Your task to perform on an android device: Open Android settings Image 0: 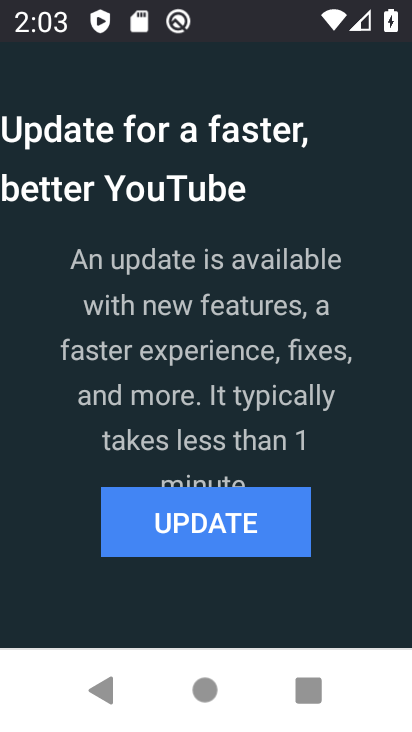
Step 0: press home button
Your task to perform on an android device: Open Android settings Image 1: 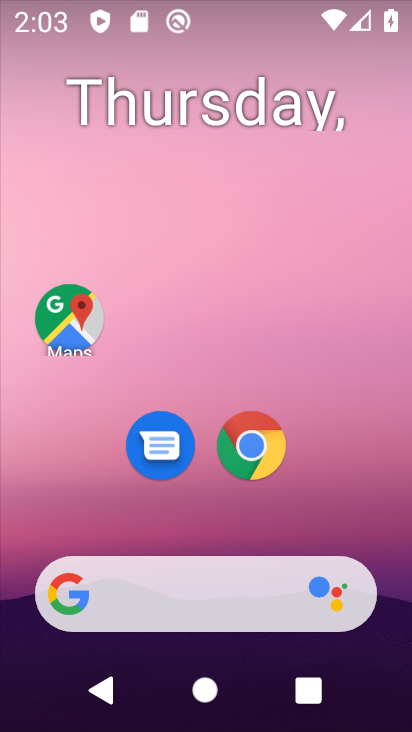
Step 1: drag from (3, 710) to (279, 114)
Your task to perform on an android device: Open Android settings Image 2: 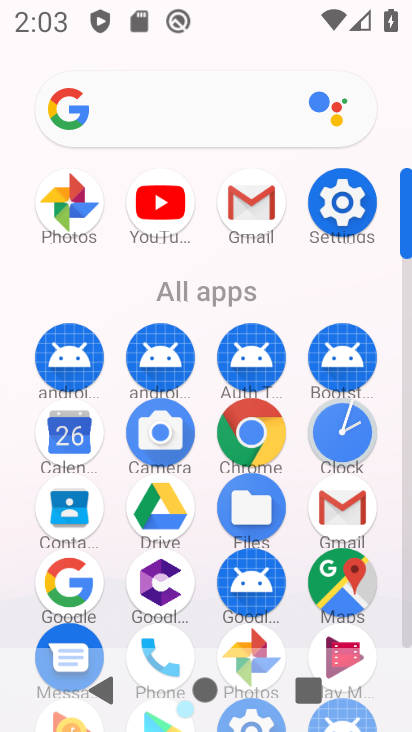
Step 2: click (318, 198)
Your task to perform on an android device: Open Android settings Image 3: 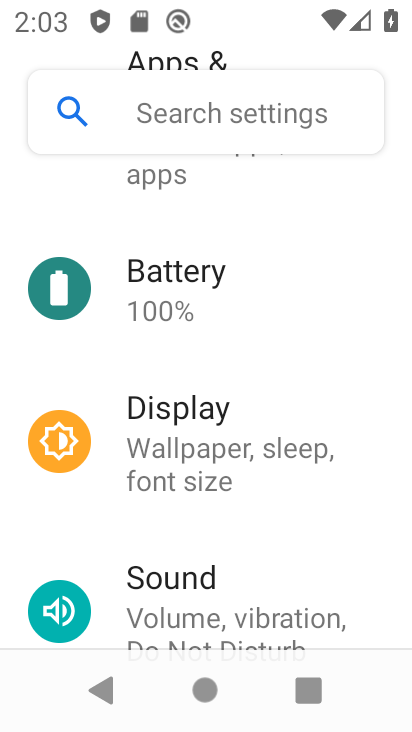
Step 3: drag from (9, 359) to (140, 172)
Your task to perform on an android device: Open Android settings Image 4: 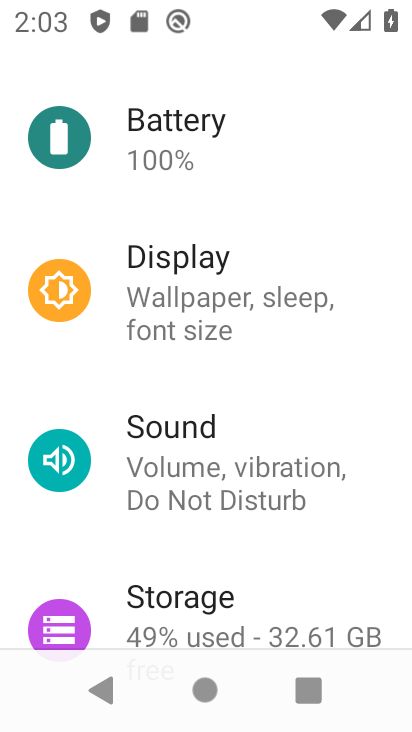
Step 4: drag from (39, 433) to (201, 217)
Your task to perform on an android device: Open Android settings Image 5: 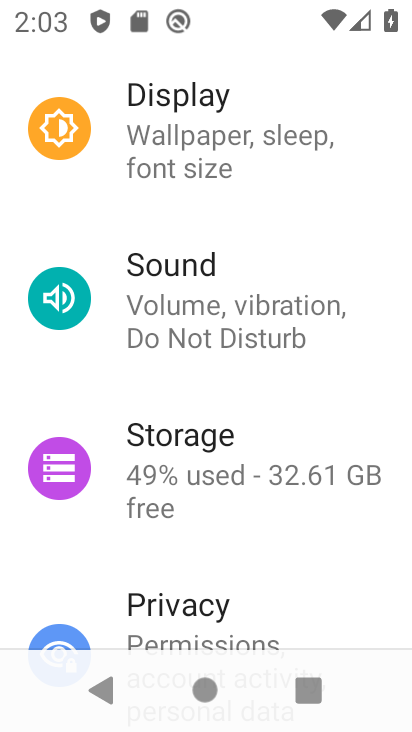
Step 5: drag from (25, 450) to (173, 206)
Your task to perform on an android device: Open Android settings Image 6: 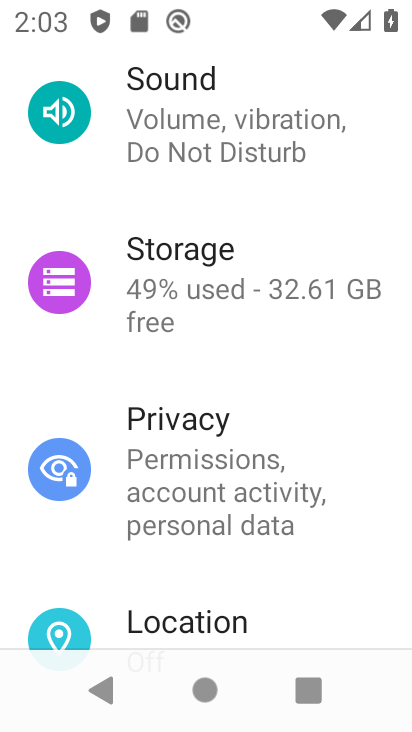
Step 6: drag from (17, 505) to (212, 184)
Your task to perform on an android device: Open Android settings Image 7: 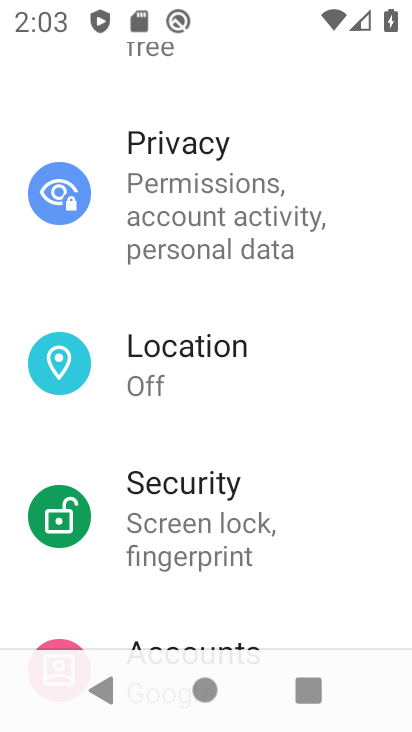
Step 7: drag from (10, 498) to (305, 111)
Your task to perform on an android device: Open Android settings Image 8: 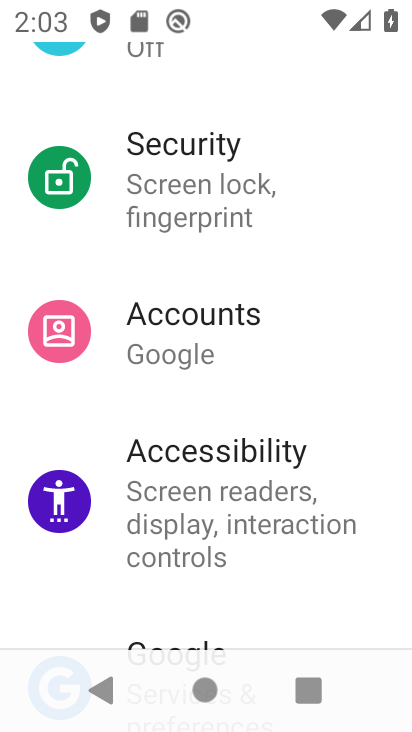
Step 8: drag from (25, 474) to (219, 171)
Your task to perform on an android device: Open Android settings Image 9: 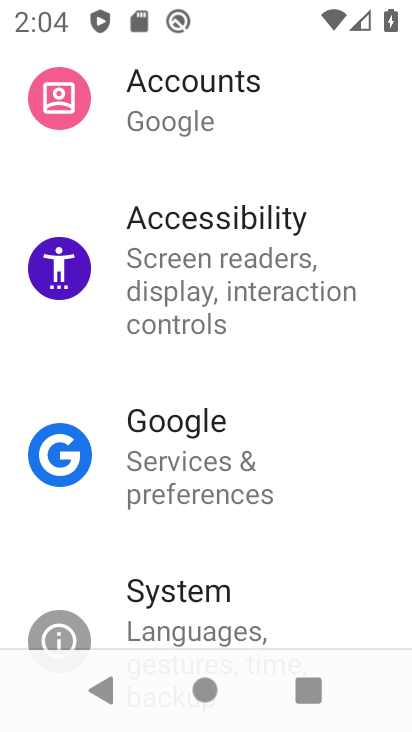
Step 9: drag from (45, 538) to (274, 199)
Your task to perform on an android device: Open Android settings Image 10: 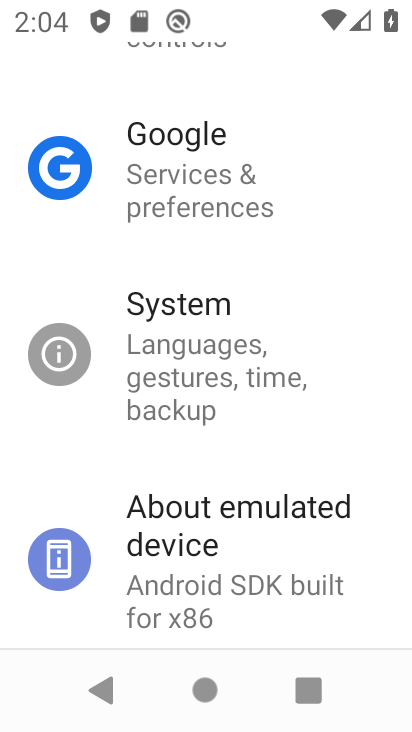
Step 10: drag from (20, 472) to (239, 180)
Your task to perform on an android device: Open Android settings Image 11: 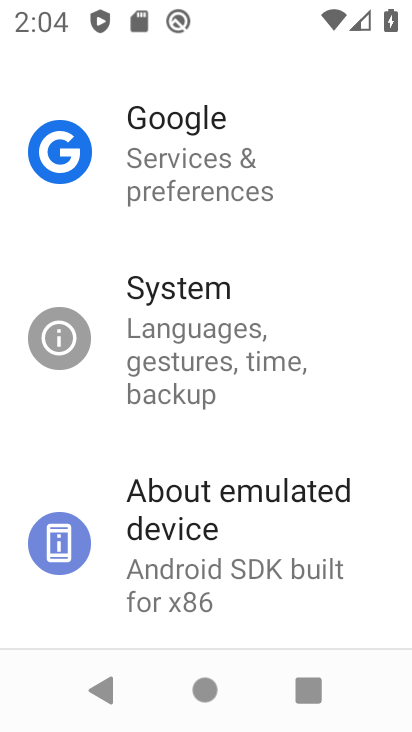
Step 11: click (259, 512)
Your task to perform on an android device: Open Android settings Image 12: 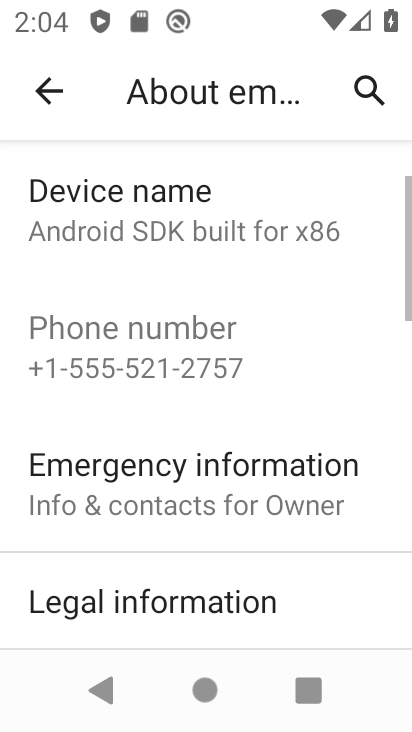
Step 12: task complete